Your task to perform on an android device: Search for good pizza restaurants on Maps Image 0: 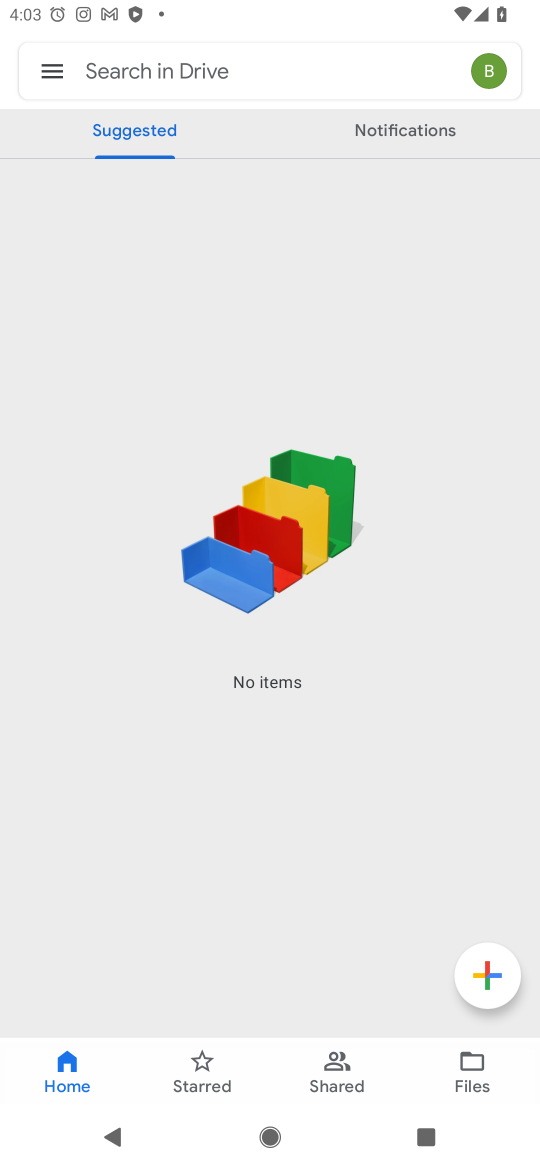
Step 0: press home button
Your task to perform on an android device: Search for good pizza restaurants on Maps Image 1: 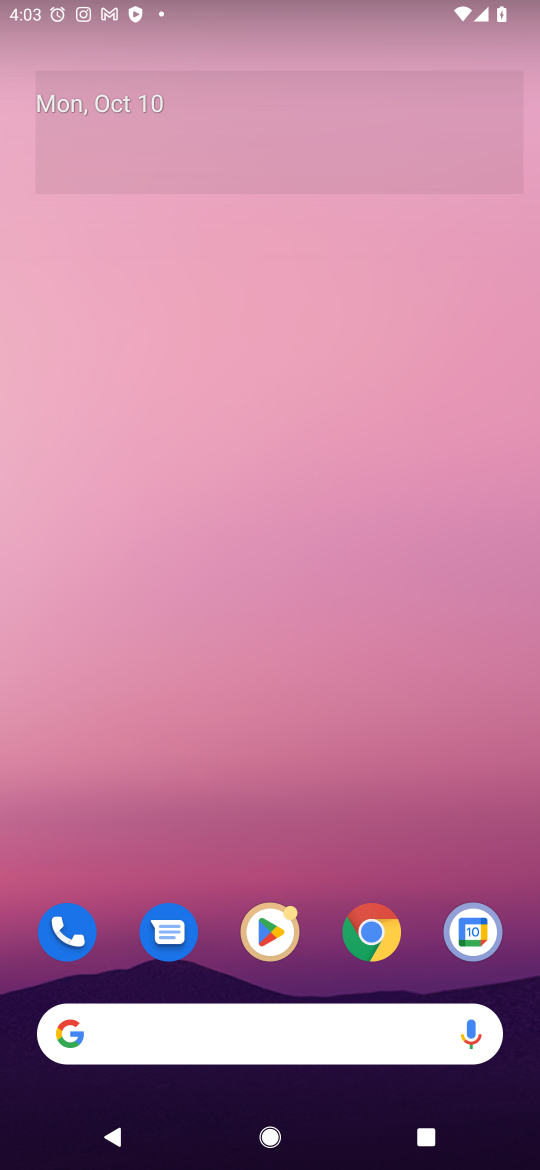
Step 1: drag from (454, 787) to (437, 55)
Your task to perform on an android device: Search for good pizza restaurants on Maps Image 2: 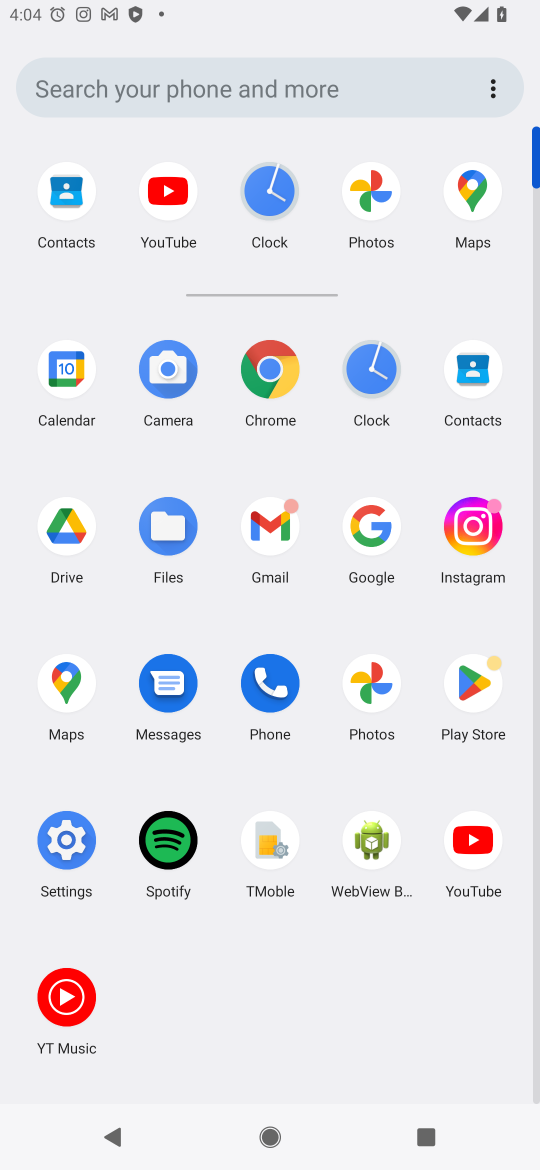
Step 2: click (57, 683)
Your task to perform on an android device: Search for good pizza restaurants on Maps Image 3: 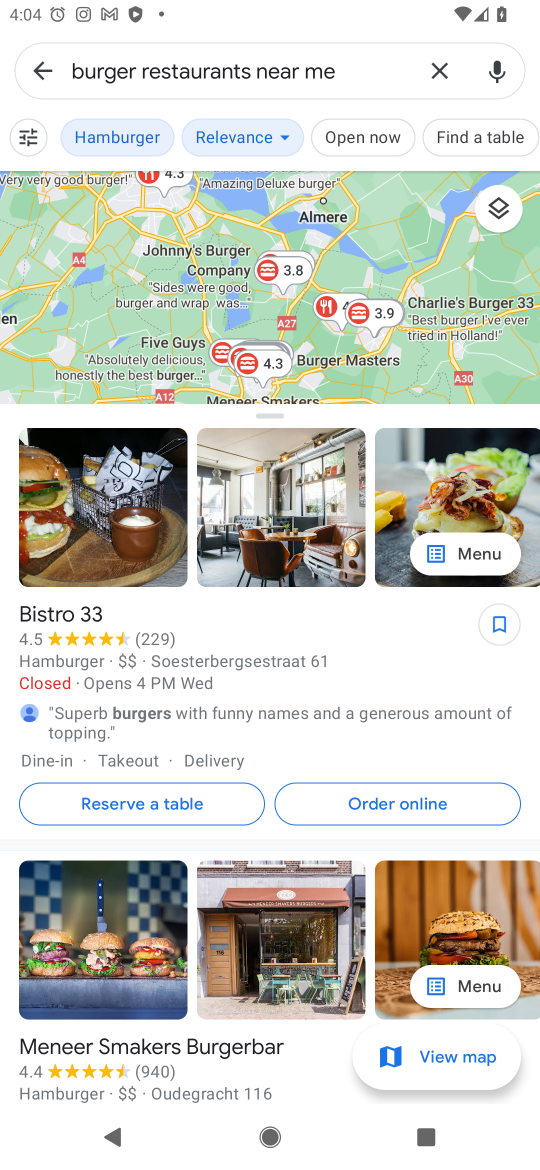
Step 3: press back button
Your task to perform on an android device: Search for good pizza restaurants on Maps Image 4: 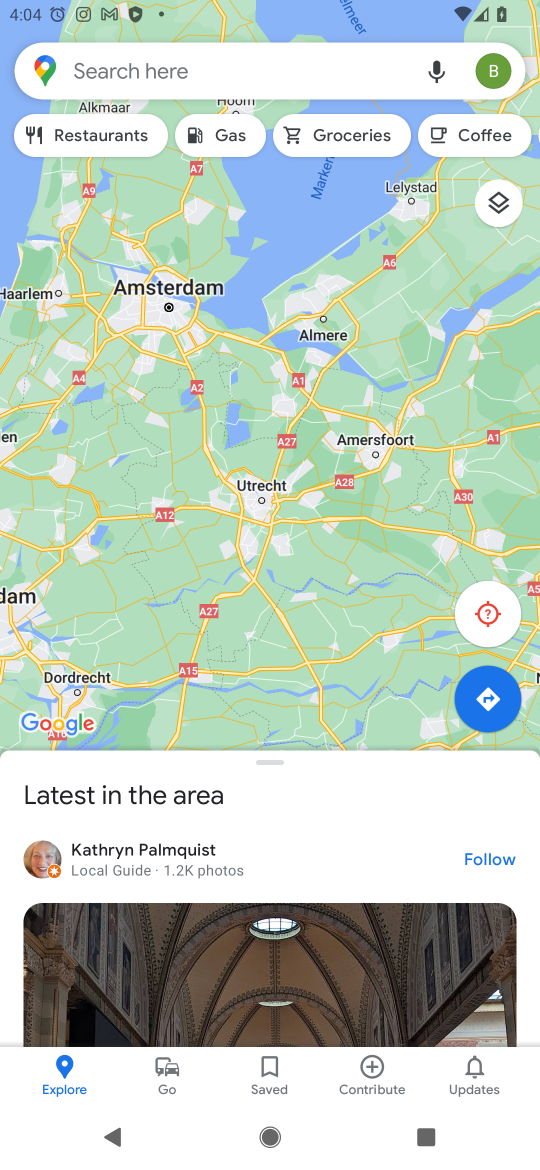
Step 4: click (283, 75)
Your task to perform on an android device: Search for good pizza restaurants on Maps Image 5: 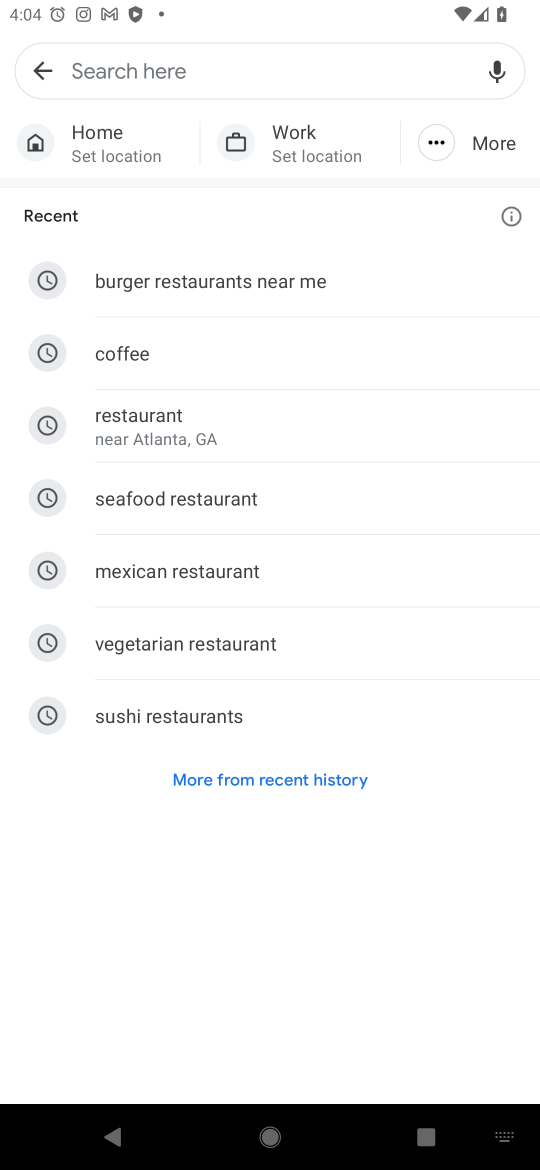
Step 5: type "good pizza restaurants"
Your task to perform on an android device: Search for good pizza restaurants on Maps Image 6: 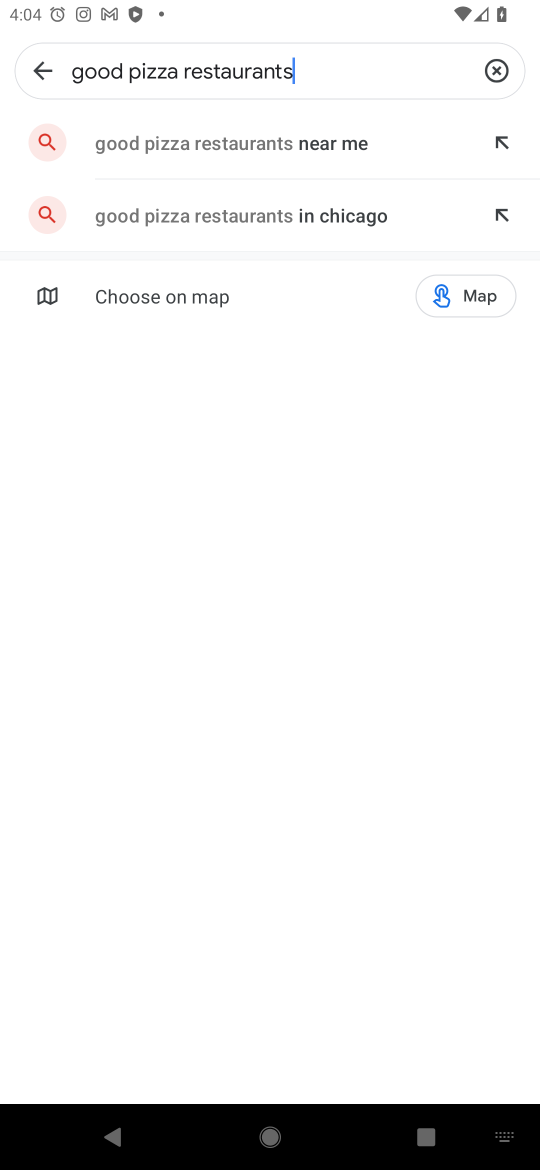
Step 6: click (296, 132)
Your task to perform on an android device: Search for good pizza restaurants on Maps Image 7: 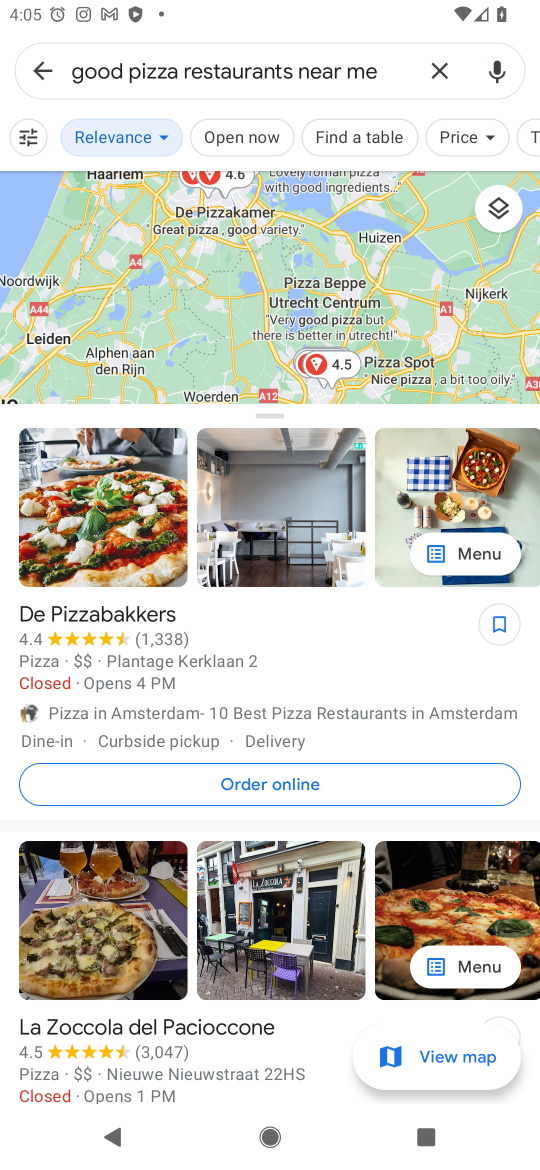
Step 7: task complete